Your task to perform on an android device: visit the assistant section in the google photos Image 0: 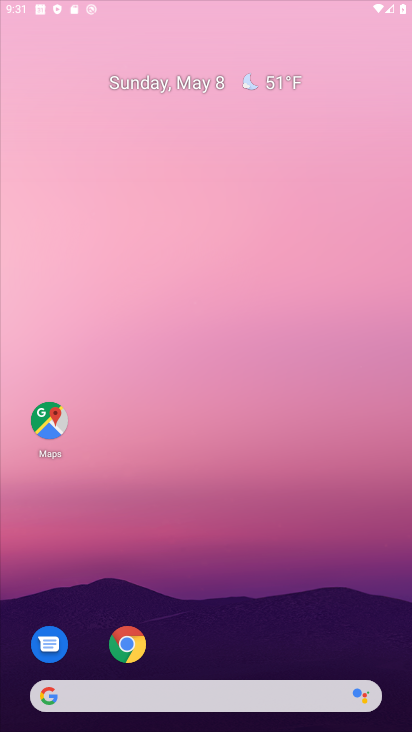
Step 0: click (250, 388)
Your task to perform on an android device: visit the assistant section in the google photos Image 1: 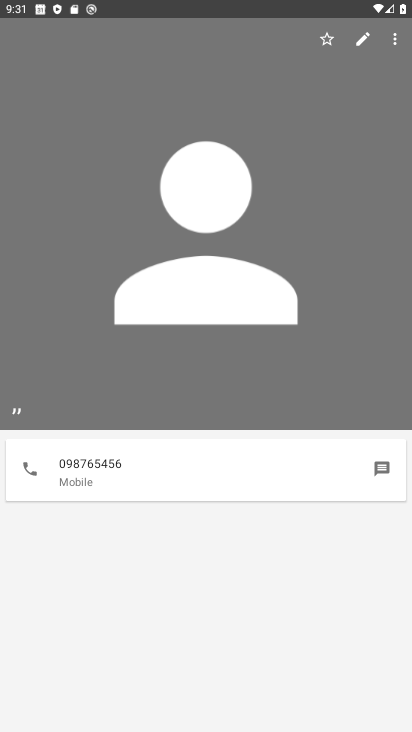
Step 1: press home button
Your task to perform on an android device: visit the assistant section in the google photos Image 2: 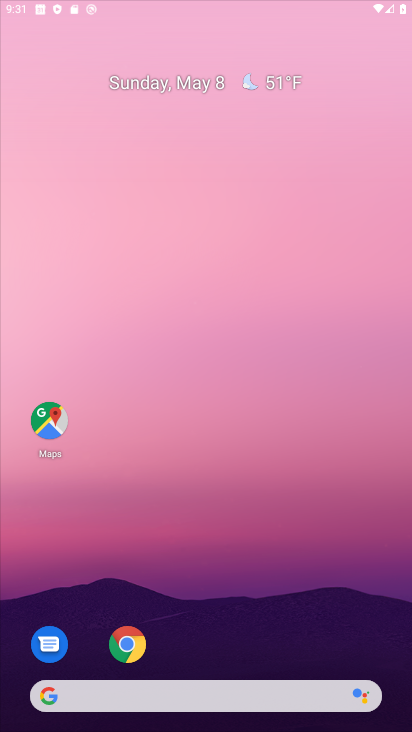
Step 2: drag from (220, 639) to (276, 188)
Your task to perform on an android device: visit the assistant section in the google photos Image 3: 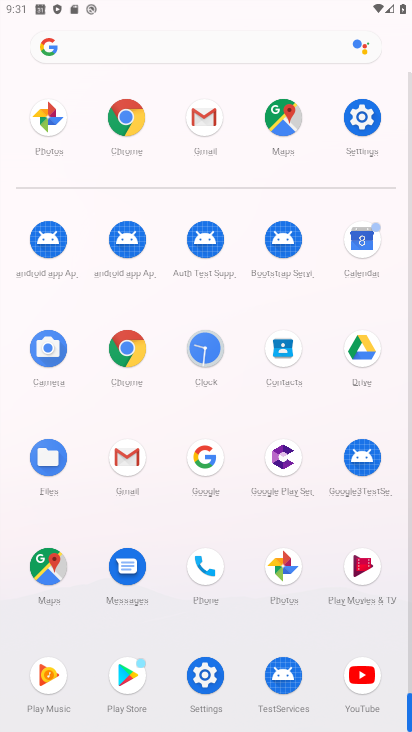
Step 3: click (278, 567)
Your task to perform on an android device: visit the assistant section in the google photos Image 4: 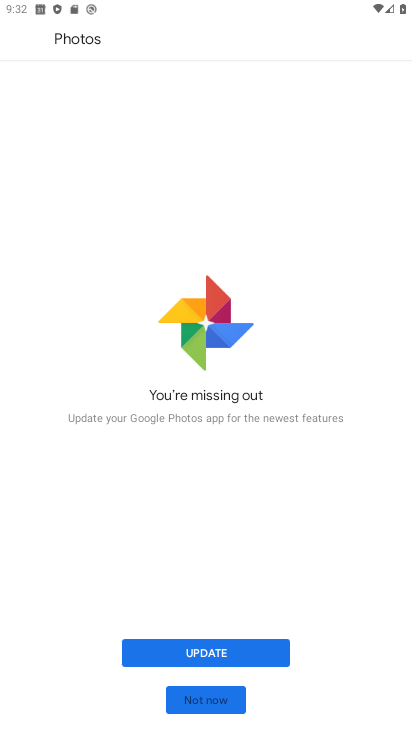
Step 4: click (198, 695)
Your task to perform on an android device: visit the assistant section in the google photos Image 5: 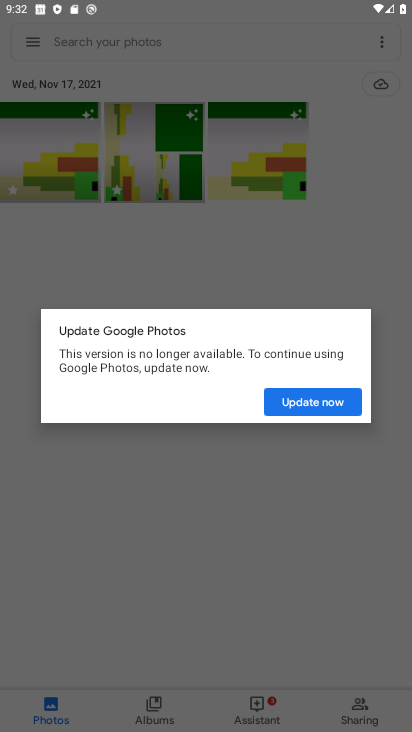
Step 5: click (239, 593)
Your task to perform on an android device: visit the assistant section in the google photos Image 6: 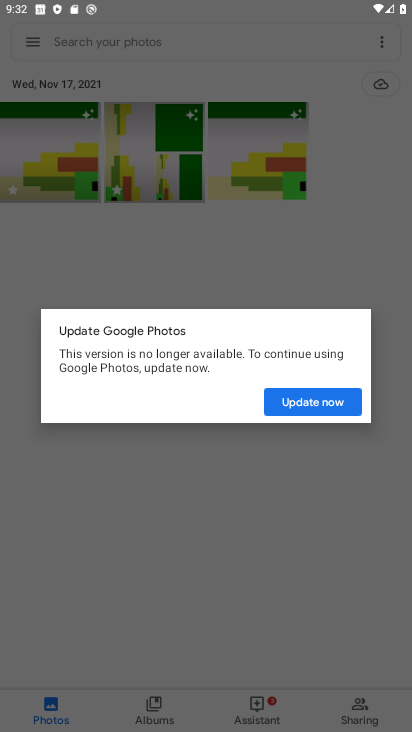
Step 6: click (329, 396)
Your task to perform on an android device: visit the assistant section in the google photos Image 7: 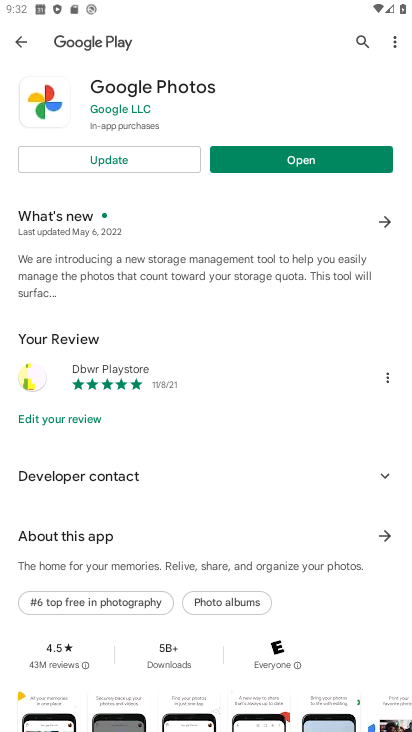
Step 7: press back button
Your task to perform on an android device: visit the assistant section in the google photos Image 8: 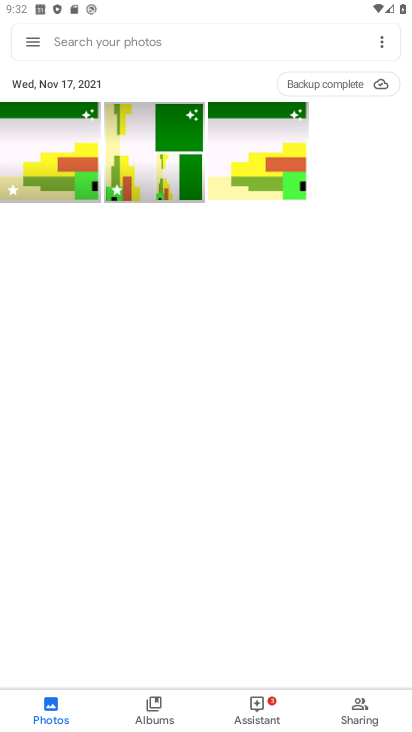
Step 8: click (261, 702)
Your task to perform on an android device: visit the assistant section in the google photos Image 9: 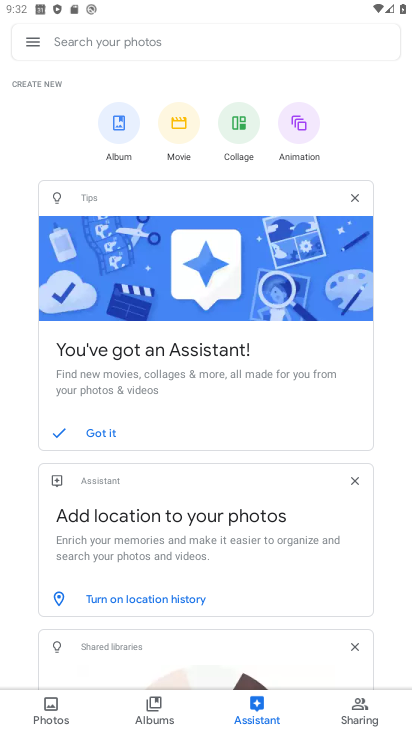
Step 9: task complete